Your task to perform on an android device: change text size in settings app Image 0: 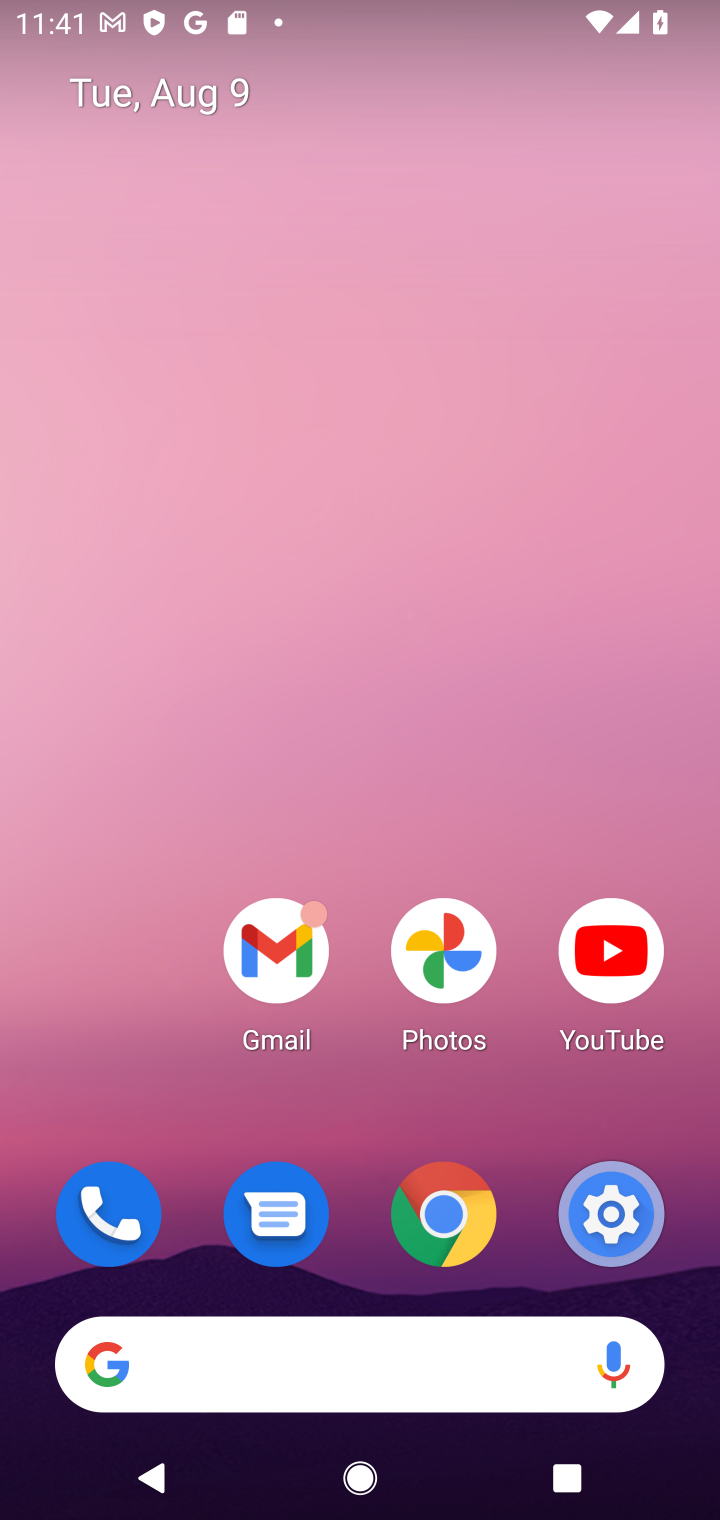
Step 0: click (560, 1225)
Your task to perform on an android device: change text size in settings app Image 1: 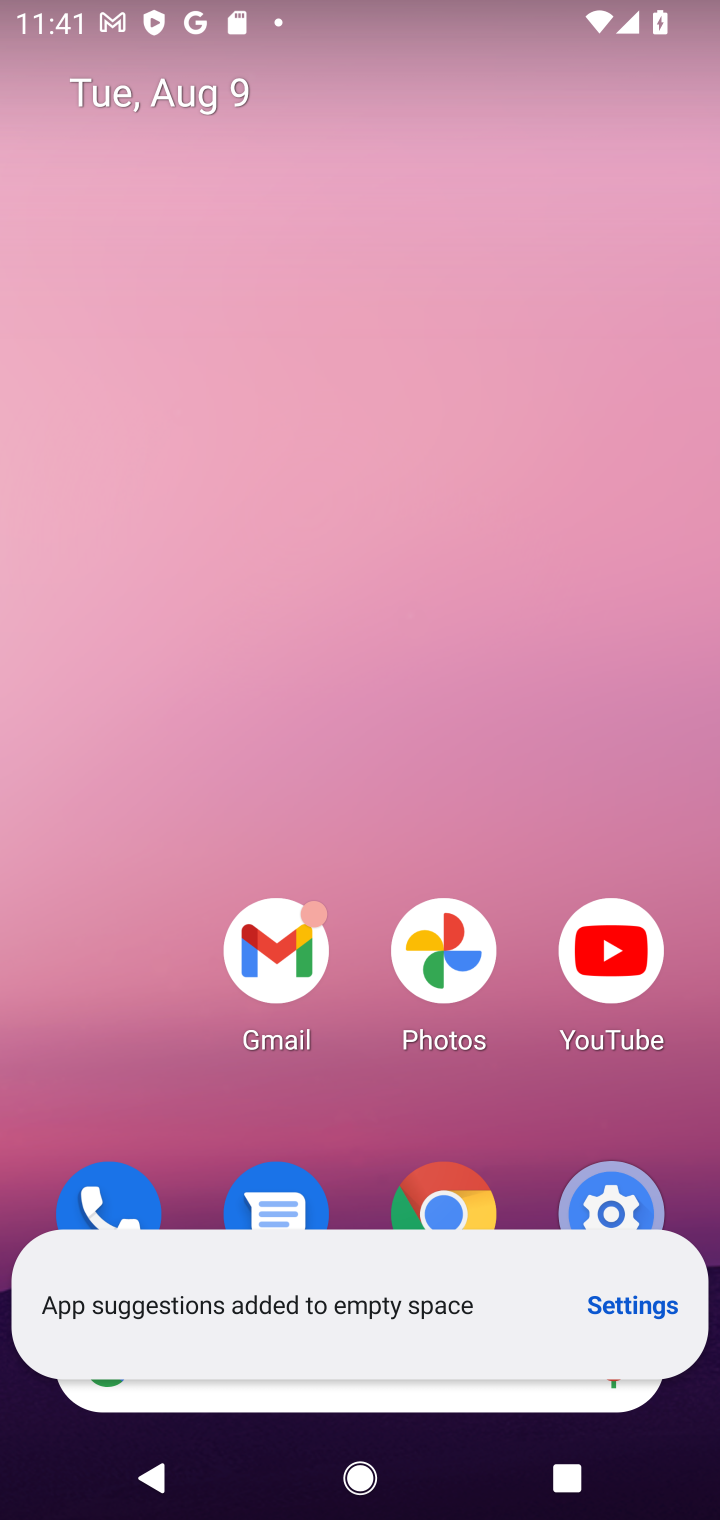
Step 1: click (613, 1225)
Your task to perform on an android device: change text size in settings app Image 2: 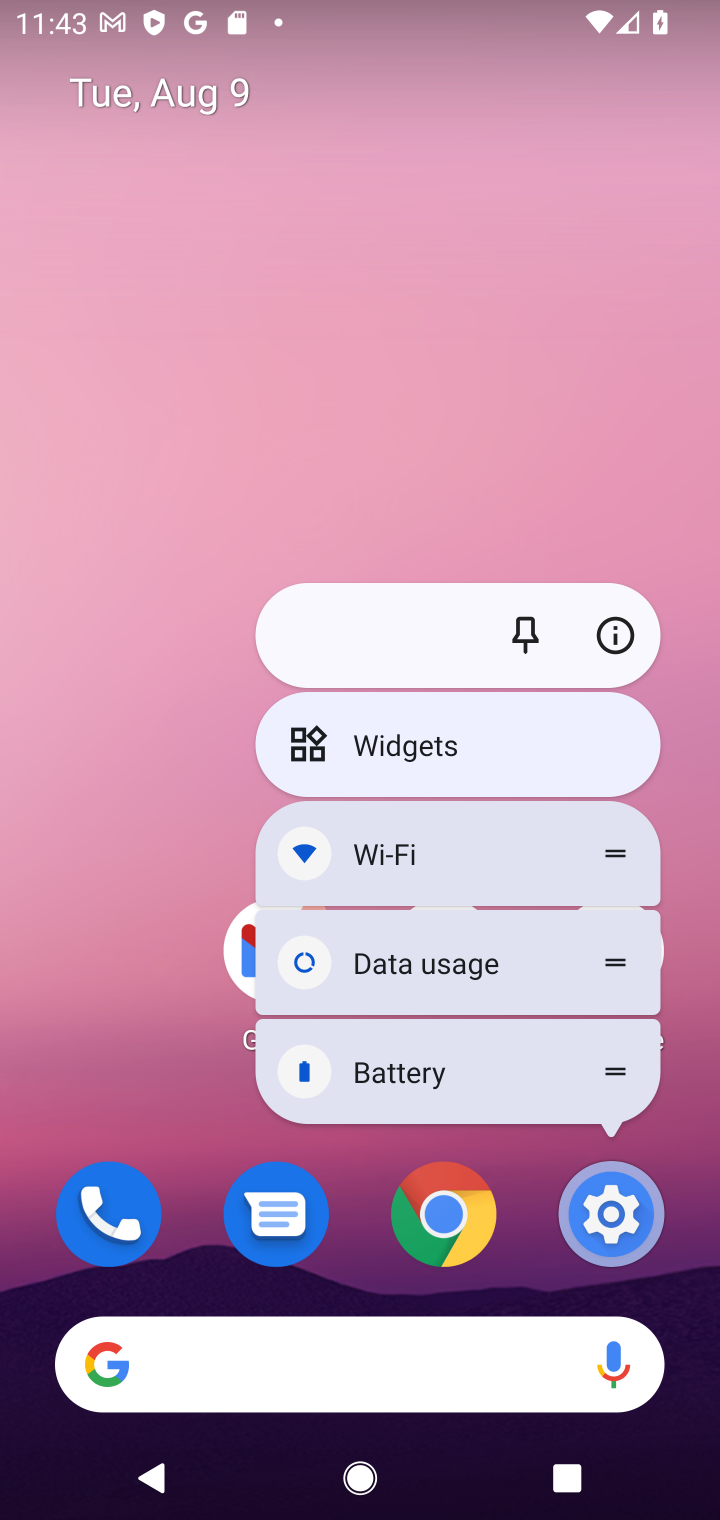
Step 2: click (403, 1198)
Your task to perform on an android device: change text size in settings app Image 3: 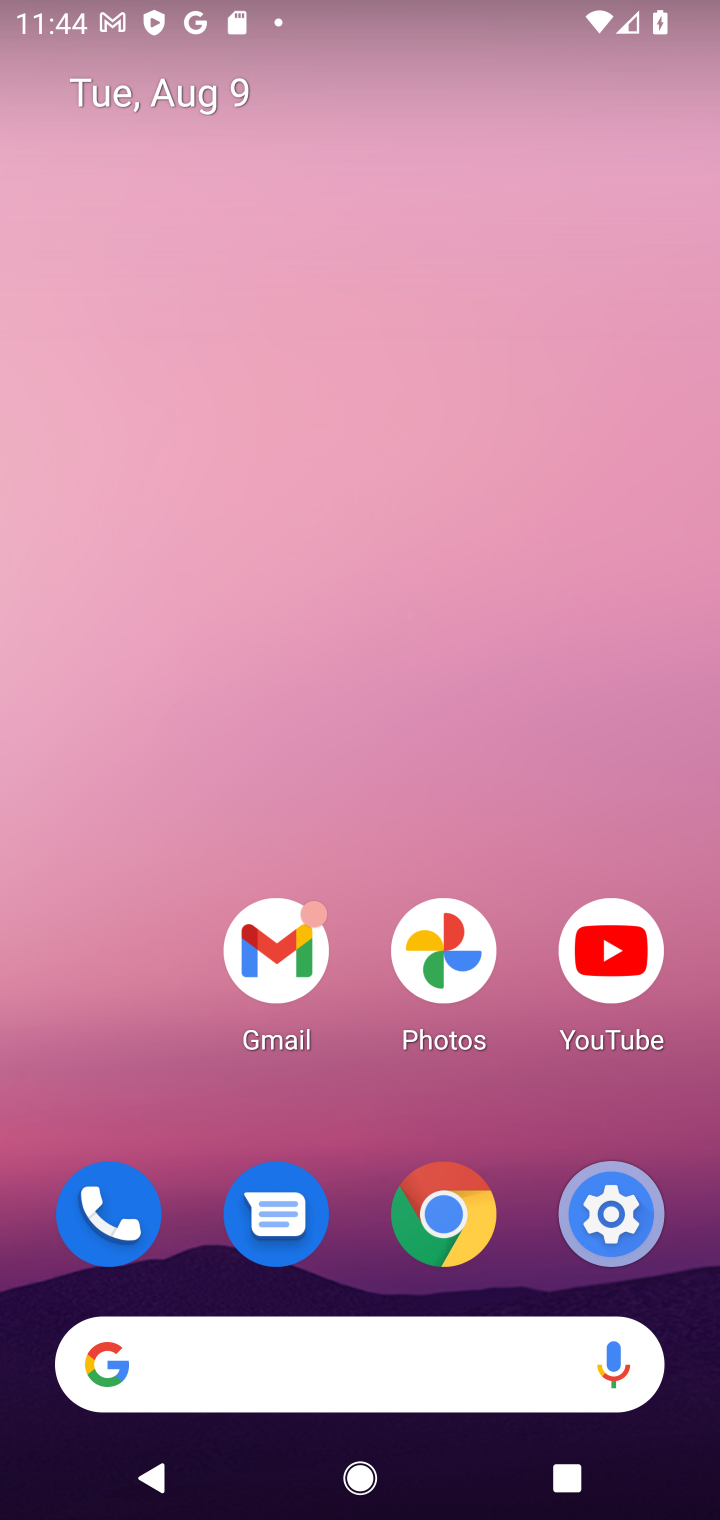
Step 3: click (630, 1208)
Your task to perform on an android device: change text size in settings app Image 4: 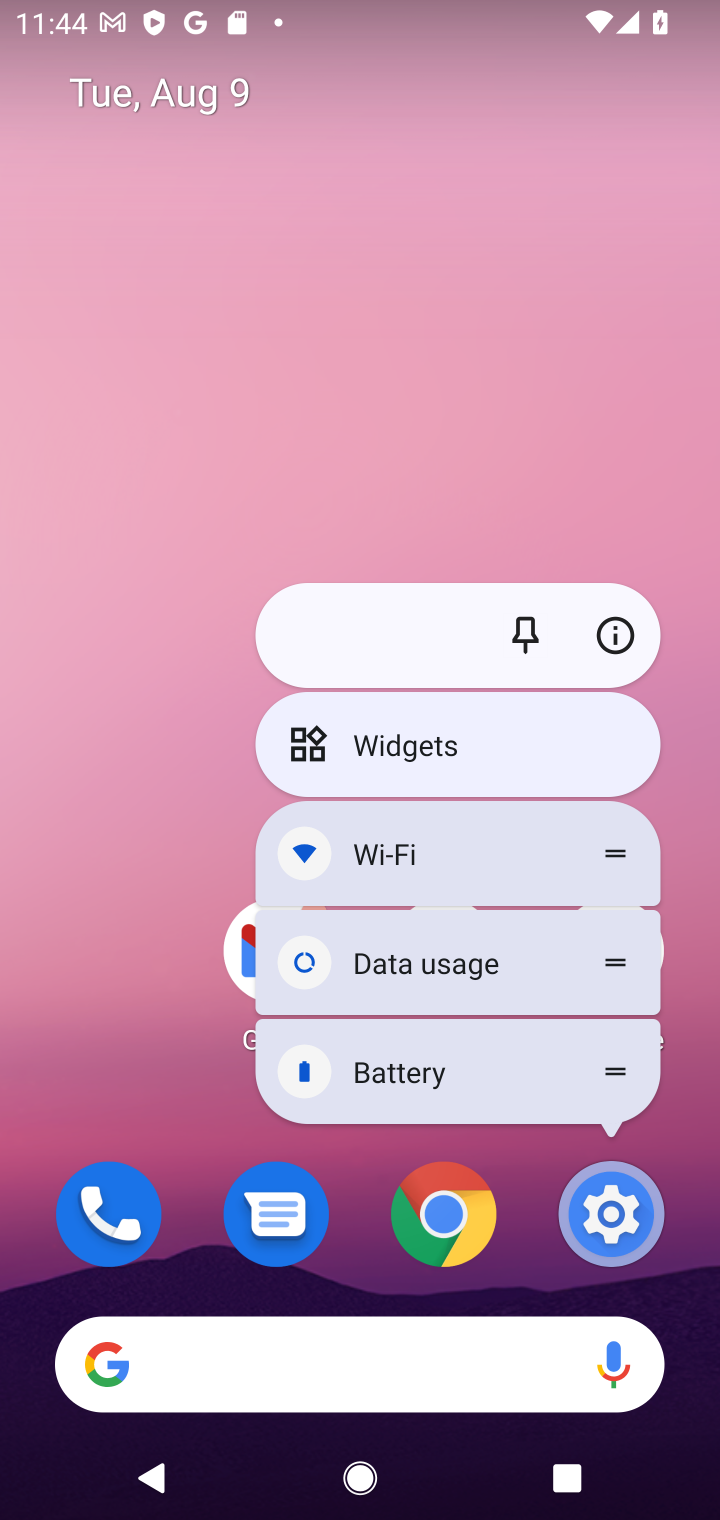
Step 4: click (630, 1208)
Your task to perform on an android device: change text size in settings app Image 5: 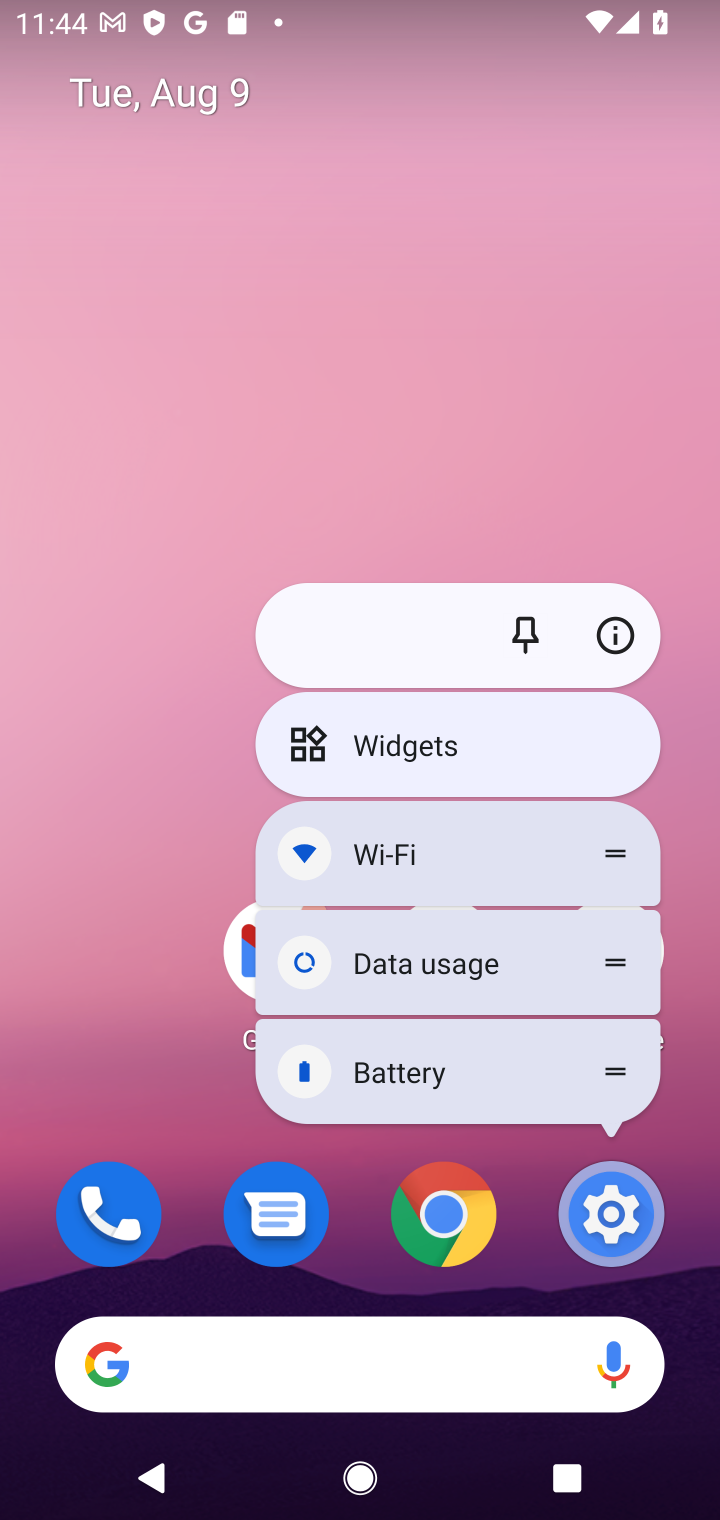
Step 5: click (601, 1206)
Your task to perform on an android device: change text size in settings app Image 6: 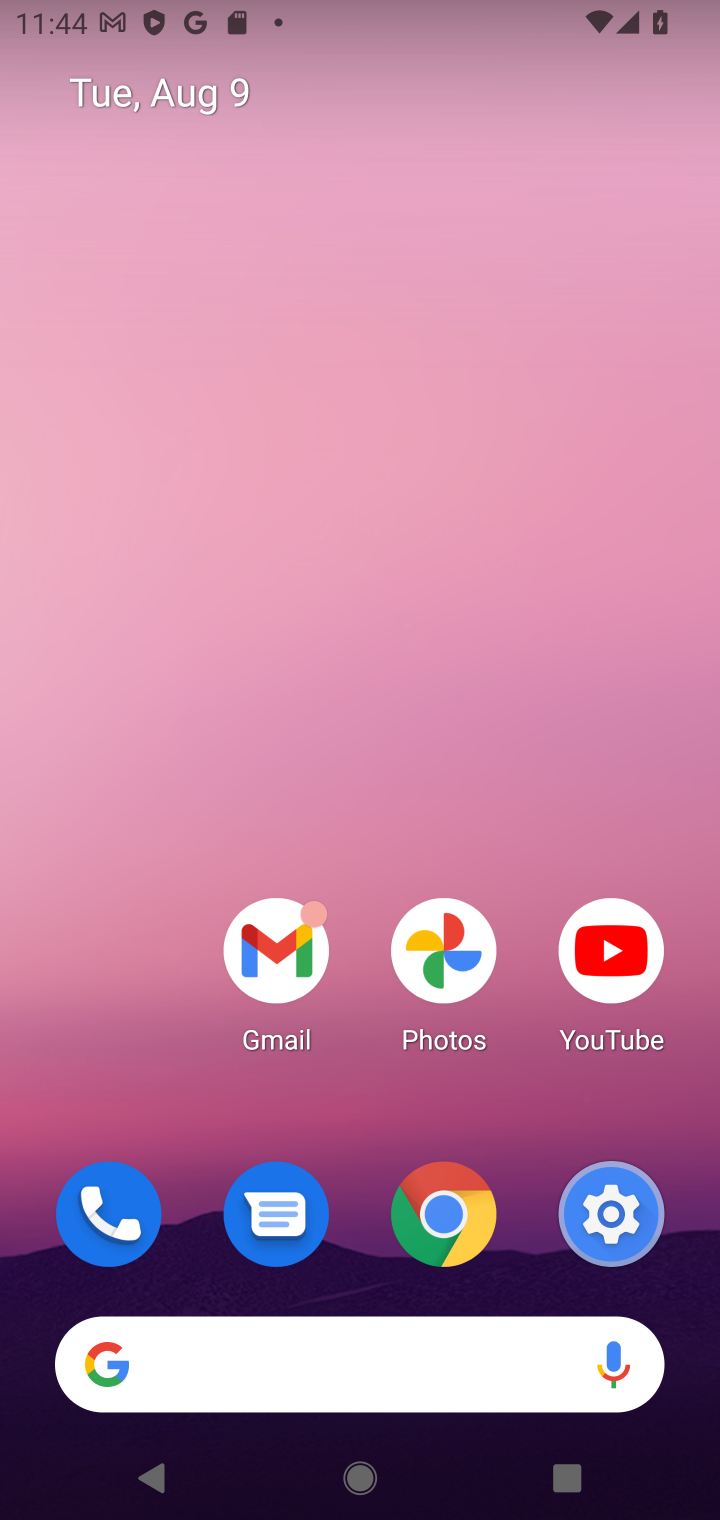
Step 6: click (601, 1206)
Your task to perform on an android device: change text size in settings app Image 7: 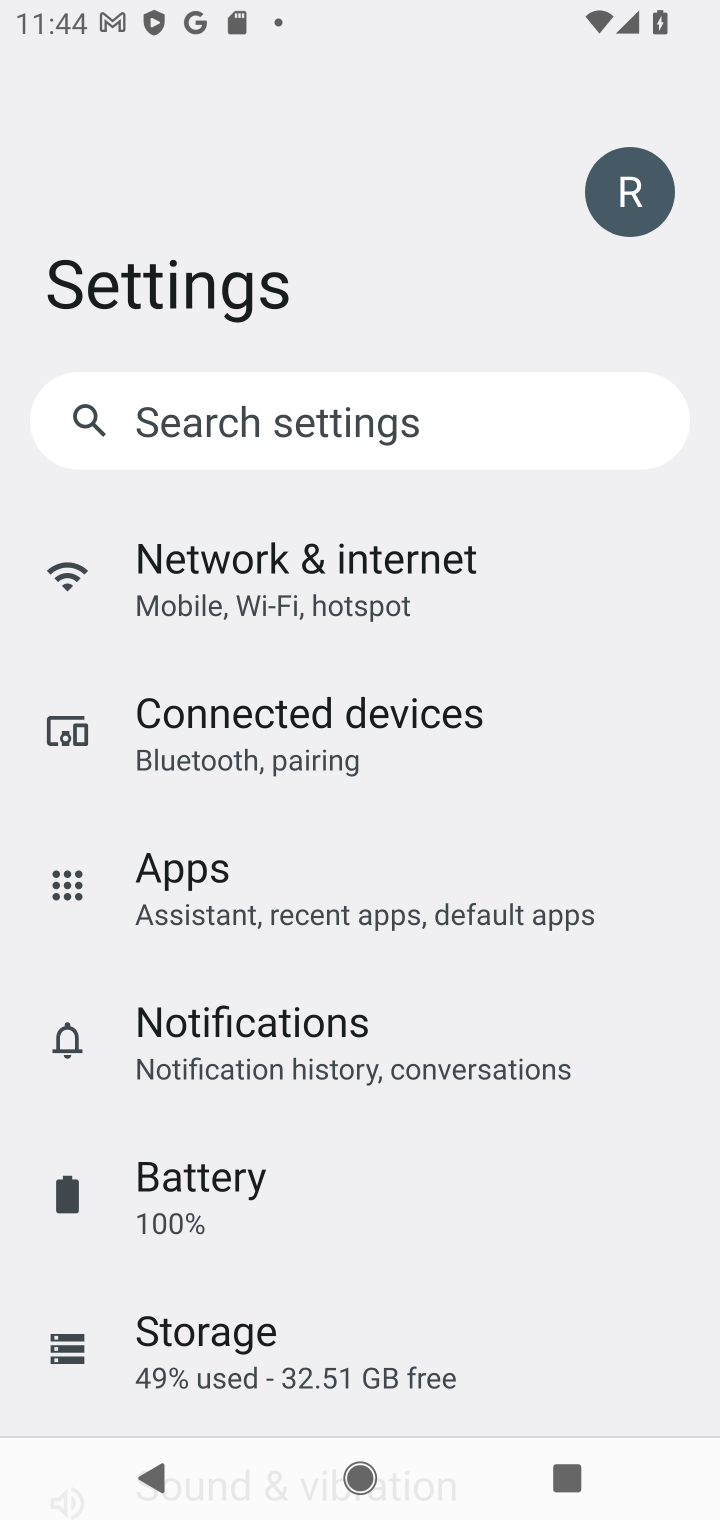
Step 7: drag from (401, 1307) to (386, 298)
Your task to perform on an android device: change text size in settings app Image 8: 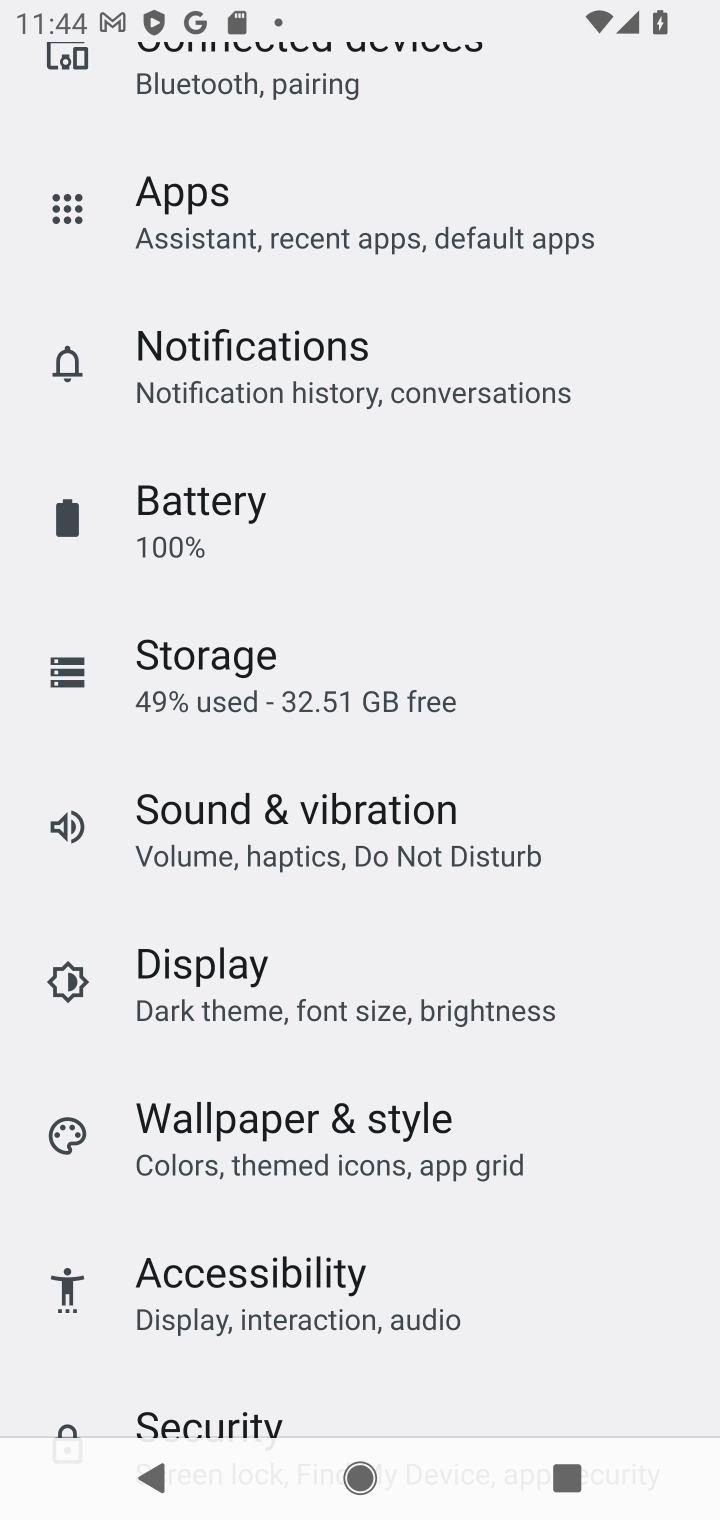
Step 8: click (460, 1012)
Your task to perform on an android device: change text size in settings app Image 9: 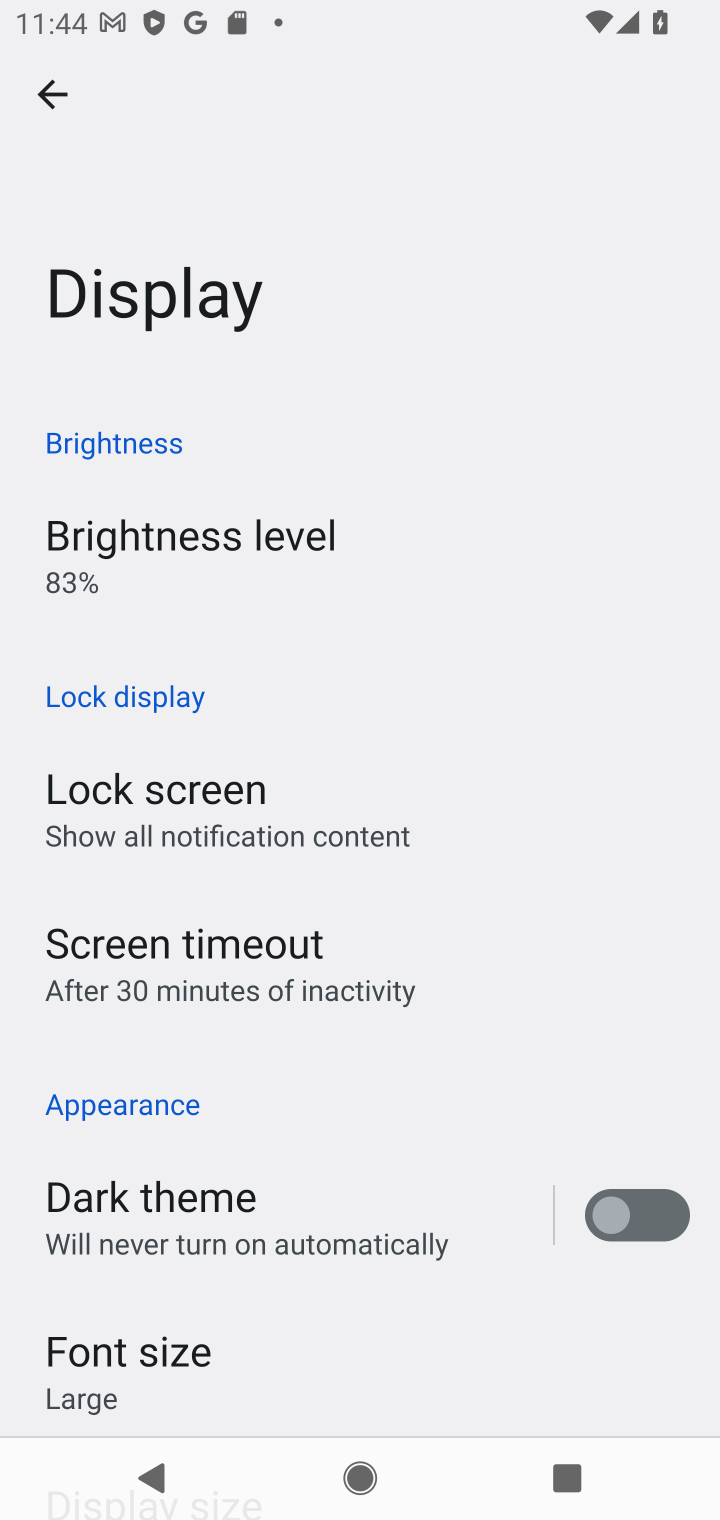
Step 9: click (290, 1361)
Your task to perform on an android device: change text size in settings app Image 10: 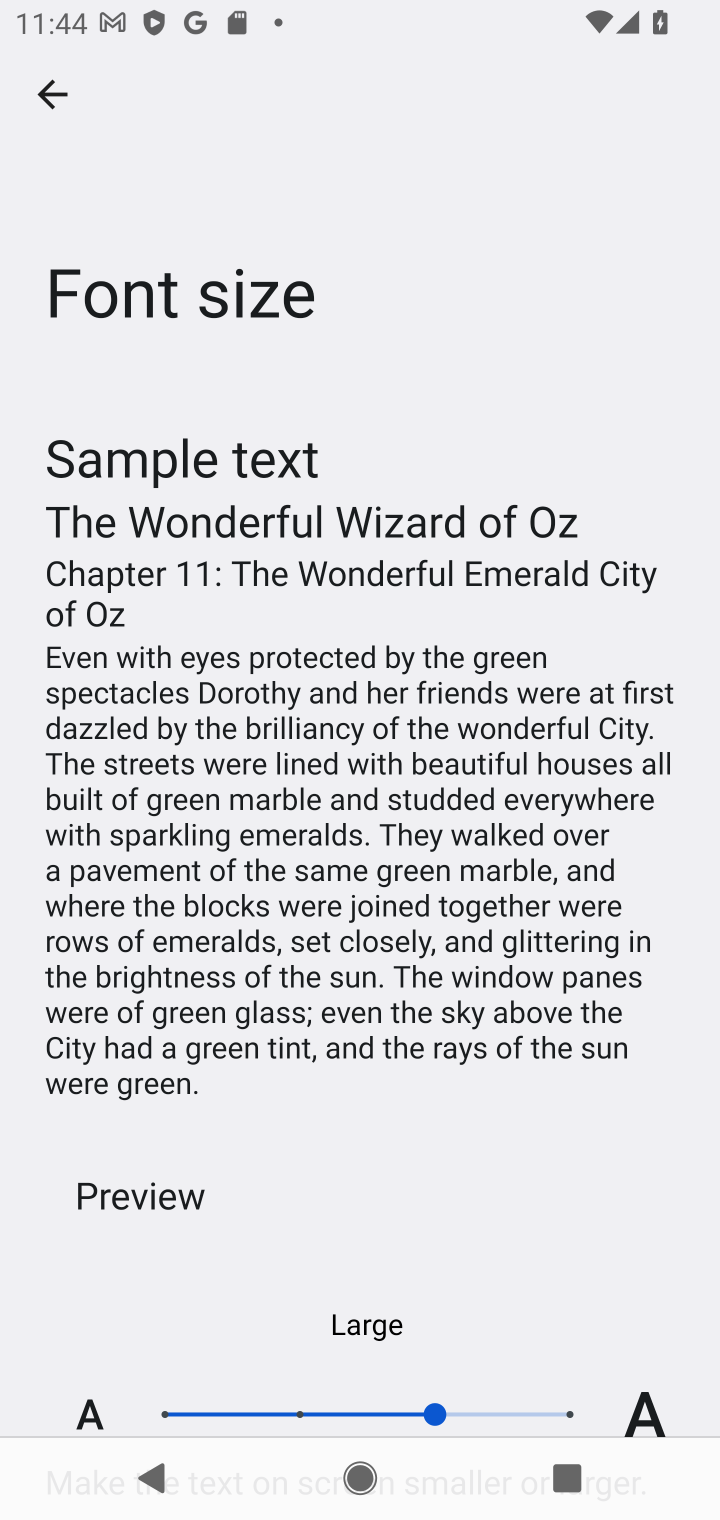
Step 10: click (316, 1415)
Your task to perform on an android device: change text size in settings app Image 11: 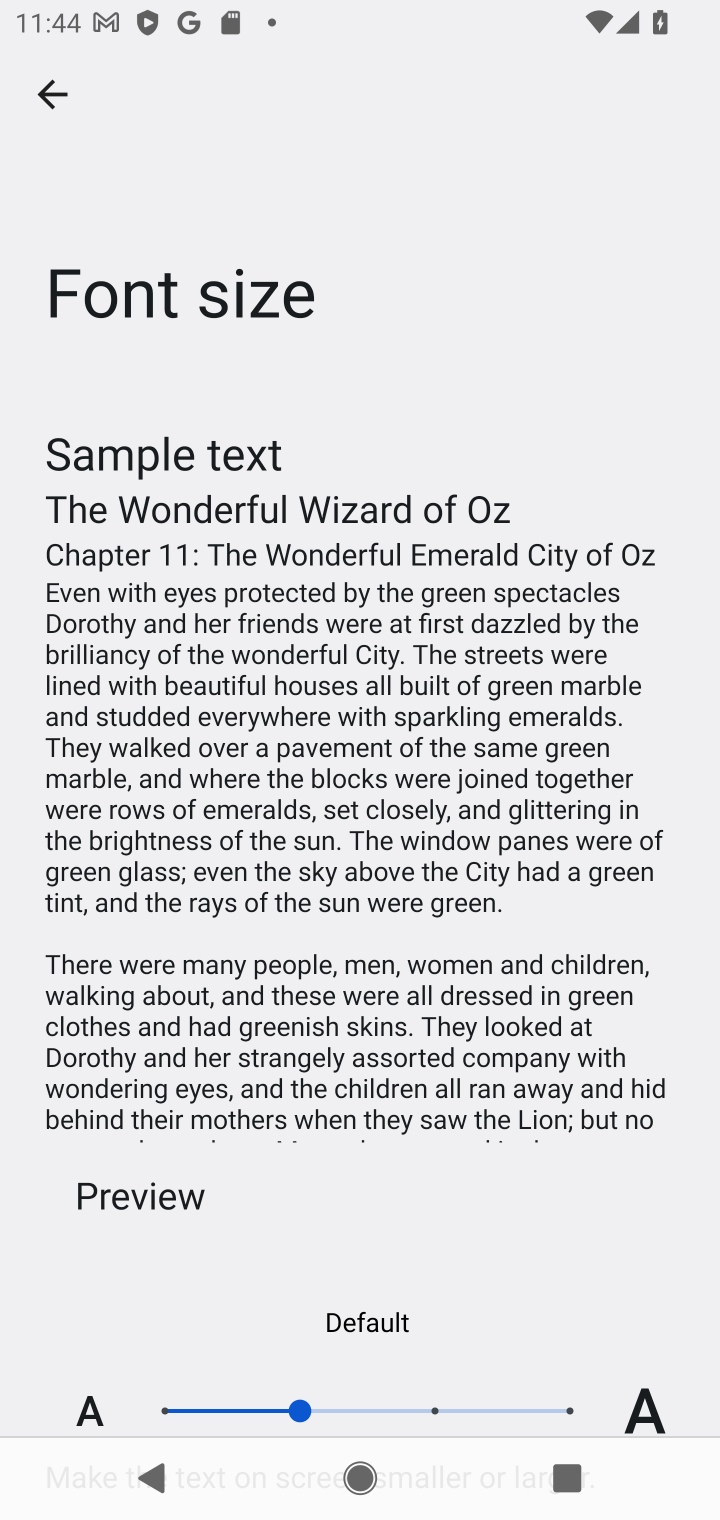
Step 11: task complete